Your task to perform on an android device: Open CNN.com Image 0: 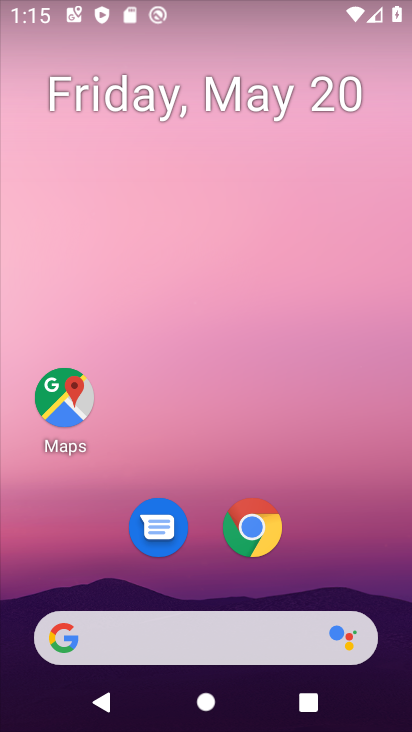
Step 0: press home button
Your task to perform on an android device: Open CNN.com Image 1: 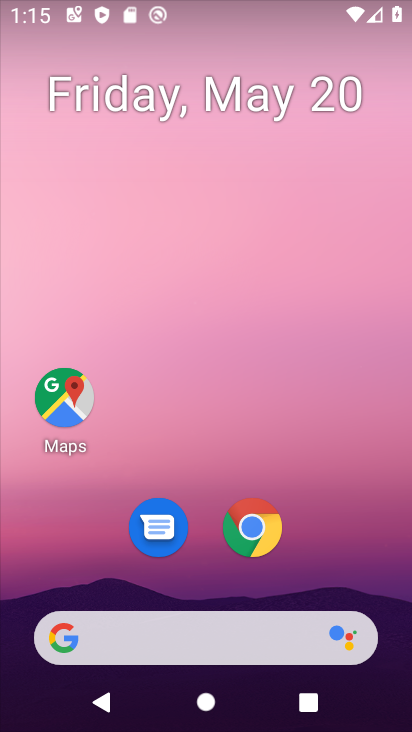
Step 1: click (247, 532)
Your task to perform on an android device: Open CNN.com Image 2: 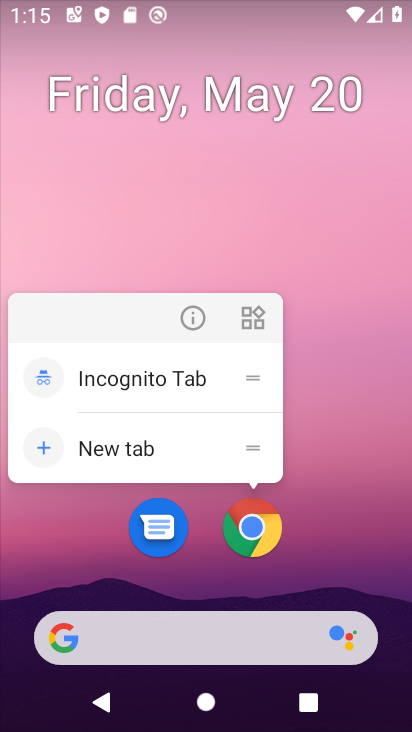
Step 2: click (247, 533)
Your task to perform on an android device: Open CNN.com Image 3: 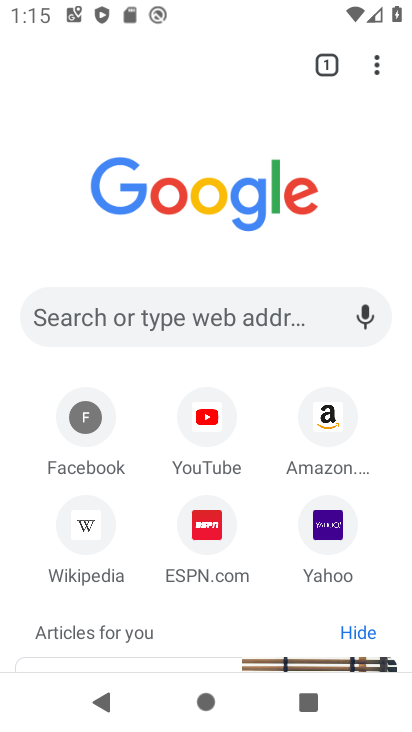
Step 3: click (228, 314)
Your task to perform on an android device: Open CNN.com Image 4: 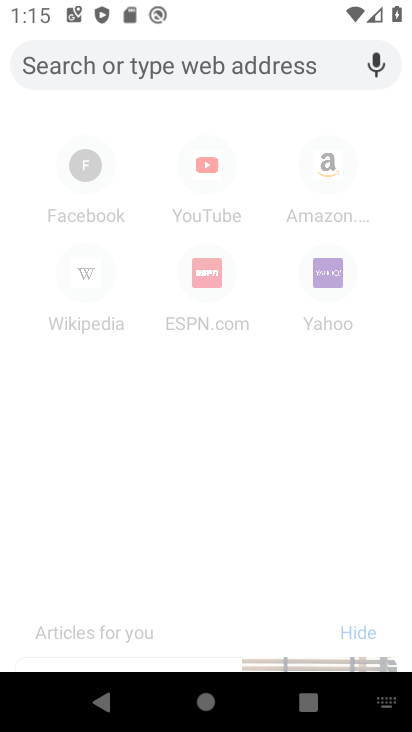
Step 4: type "cnn.com"
Your task to perform on an android device: Open CNN.com Image 5: 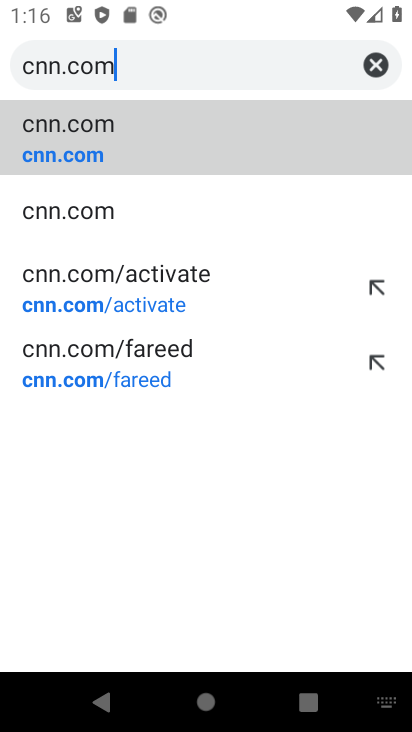
Step 5: click (104, 138)
Your task to perform on an android device: Open CNN.com Image 6: 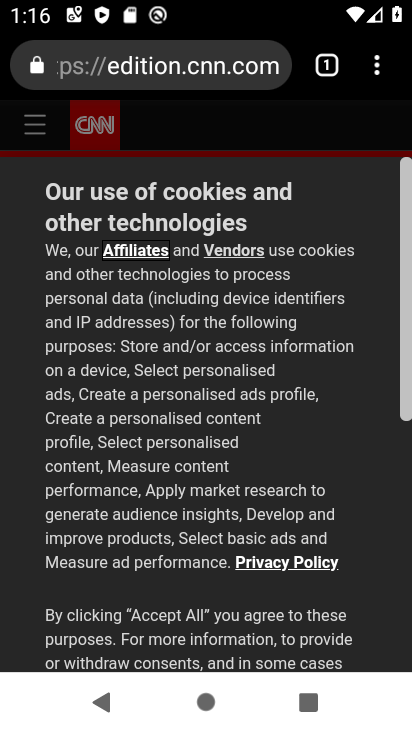
Step 6: drag from (346, 606) to (376, 199)
Your task to perform on an android device: Open CNN.com Image 7: 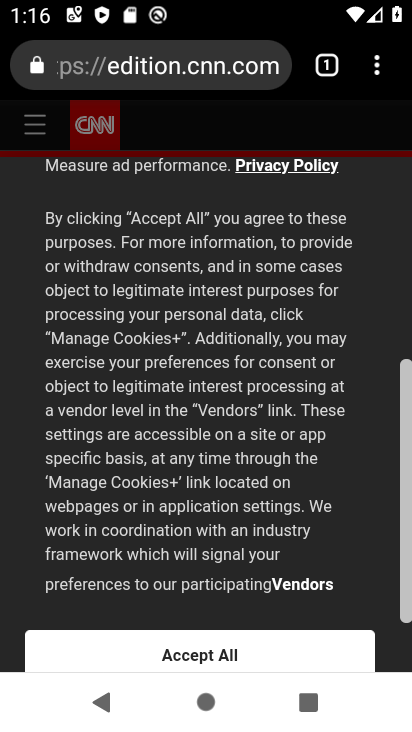
Step 7: drag from (298, 557) to (366, 263)
Your task to perform on an android device: Open CNN.com Image 8: 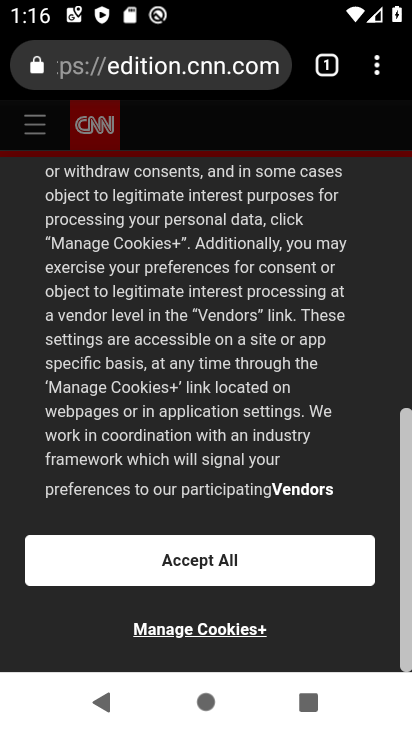
Step 8: click (226, 561)
Your task to perform on an android device: Open CNN.com Image 9: 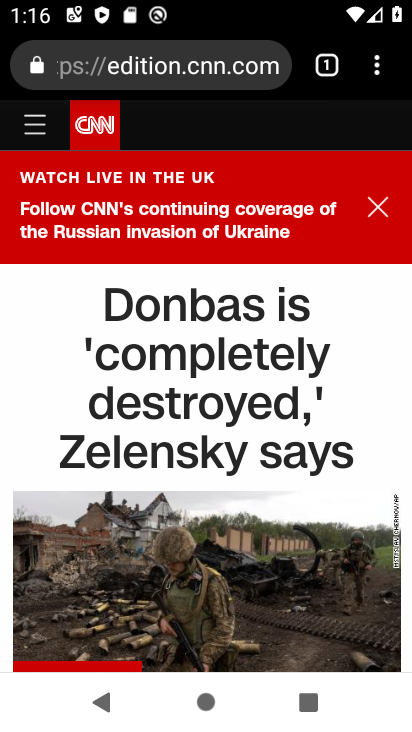
Step 9: task complete